Your task to perform on an android device: see sites visited before in the chrome app Image 0: 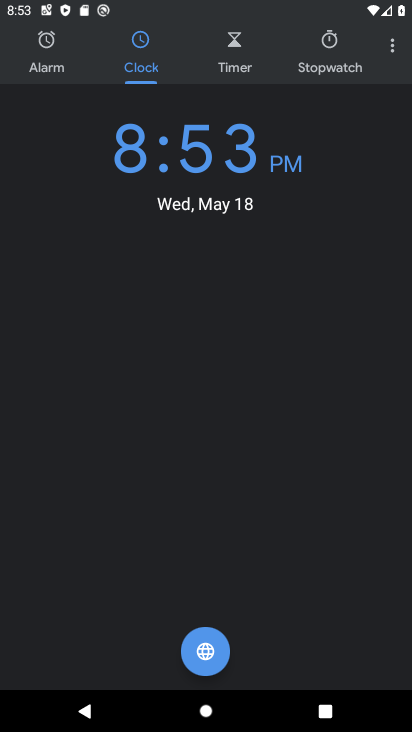
Step 0: press home button
Your task to perform on an android device: see sites visited before in the chrome app Image 1: 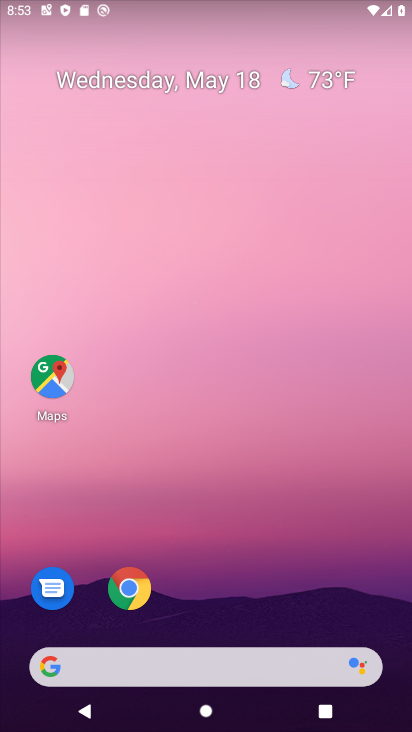
Step 1: drag from (354, 594) to (321, 215)
Your task to perform on an android device: see sites visited before in the chrome app Image 2: 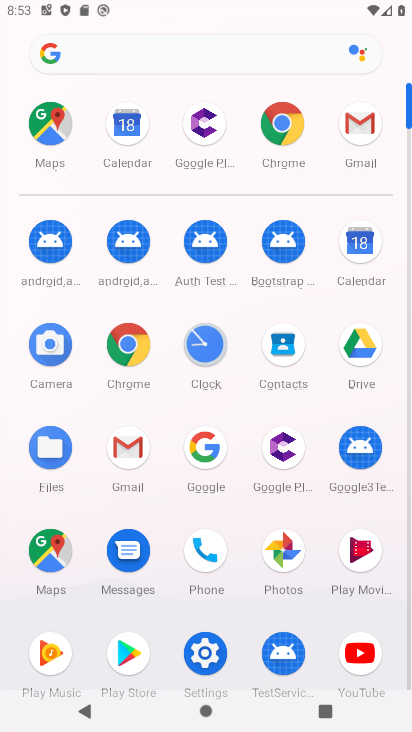
Step 2: click (123, 351)
Your task to perform on an android device: see sites visited before in the chrome app Image 3: 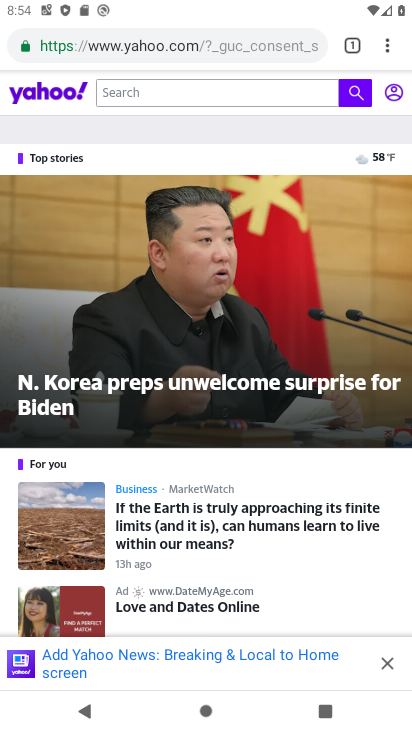
Step 3: task complete